Your task to perform on an android device: Go to Android settings Image 0: 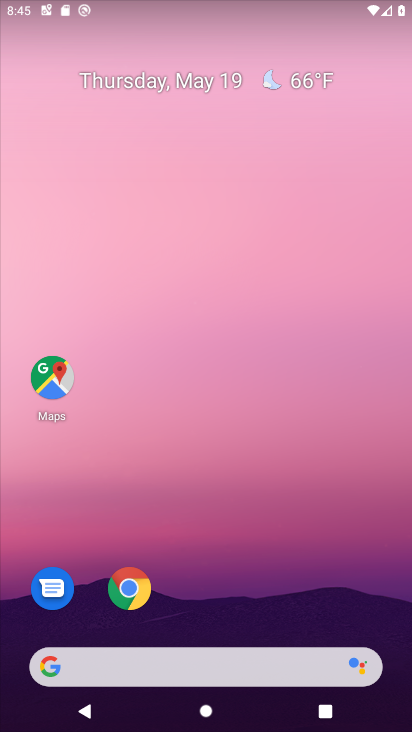
Step 0: drag from (344, 595) to (361, 171)
Your task to perform on an android device: Go to Android settings Image 1: 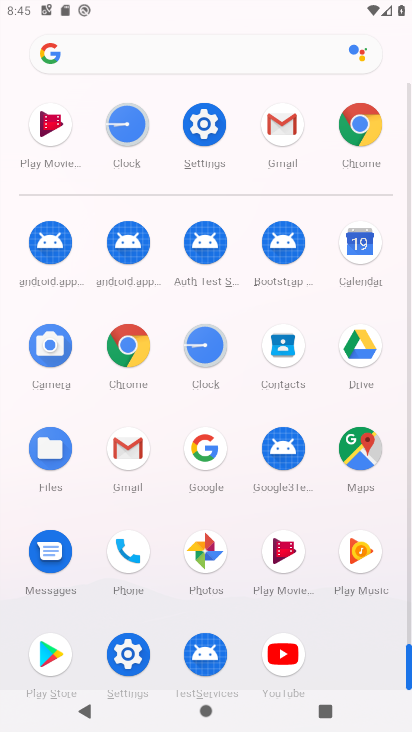
Step 1: drag from (317, 631) to (321, 377)
Your task to perform on an android device: Go to Android settings Image 2: 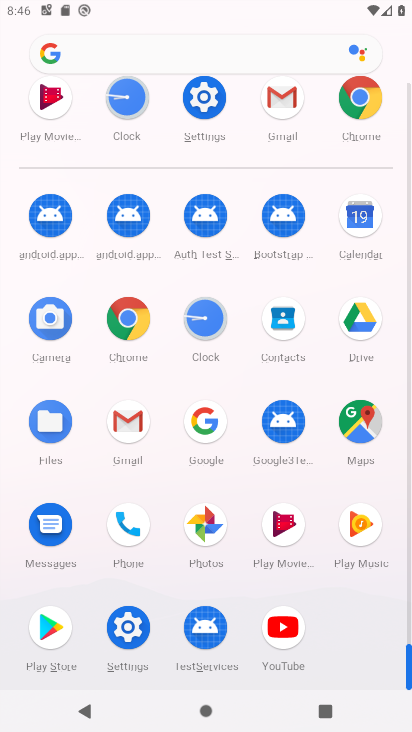
Step 2: click (213, 115)
Your task to perform on an android device: Go to Android settings Image 3: 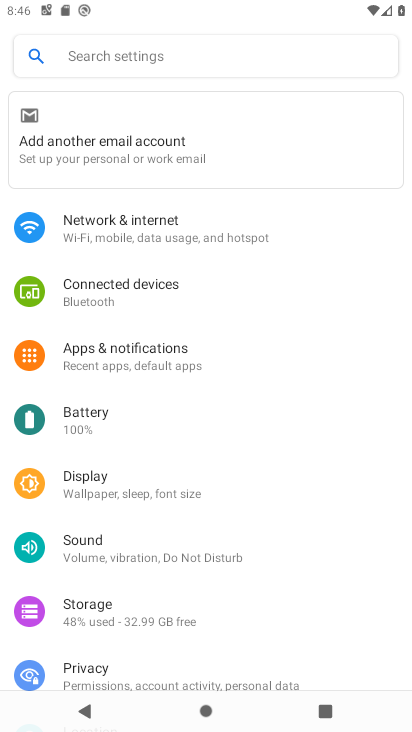
Step 3: drag from (285, 445) to (314, 314)
Your task to perform on an android device: Go to Android settings Image 4: 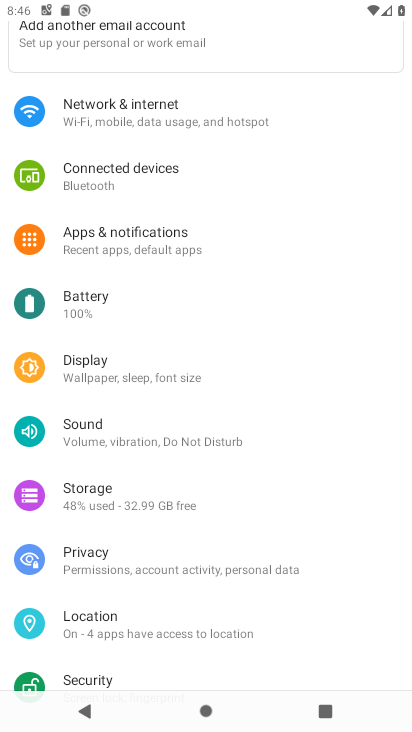
Step 4: drag from (337, 525) to (333, 315)
Your task to perform on an android device: Go to Android settings Image 5: 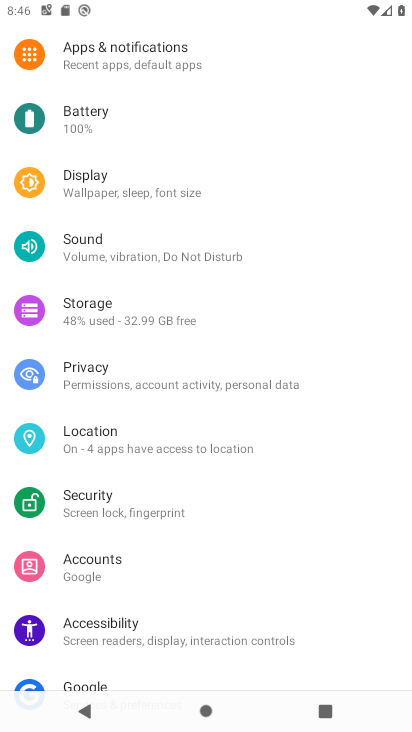
Step 5: drag from (336, 565) to (338, 380)
Your task to perform on an android device: Go to Android settings Image 6: 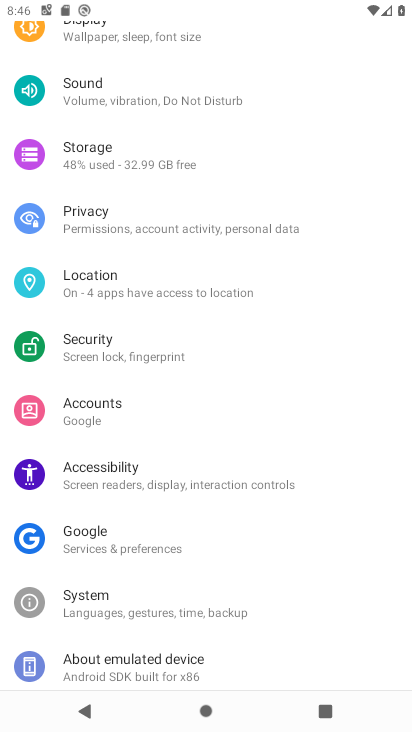
Step 6: drag from (328, 593) to (332, 466)
Your task to perform on an android device: Go to Android settings Image 7: 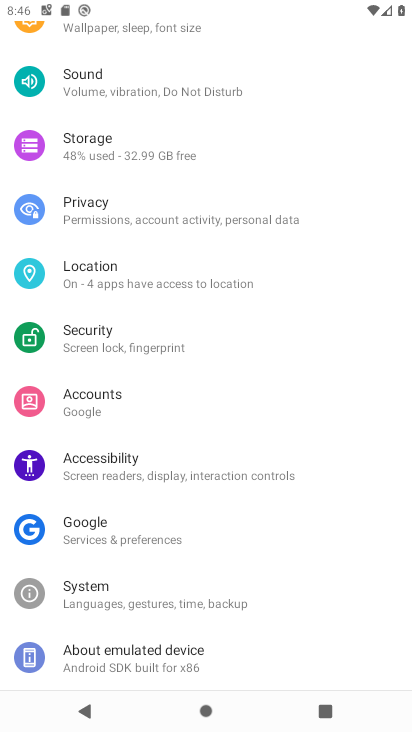
Step 7: drag from (323, 579) to (320, 458)
Your task to perform on an android device: Go to Android settings Image 8: 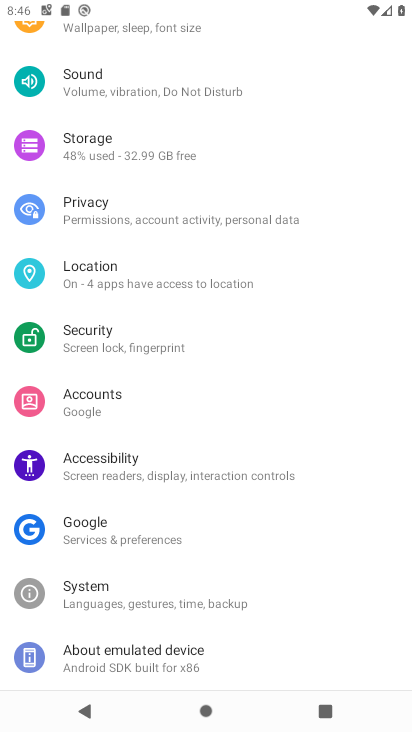
Step 8: drag from (321, 586) to (324, 481)
Your task to perform on an android device: Go to Android settings Image 9: 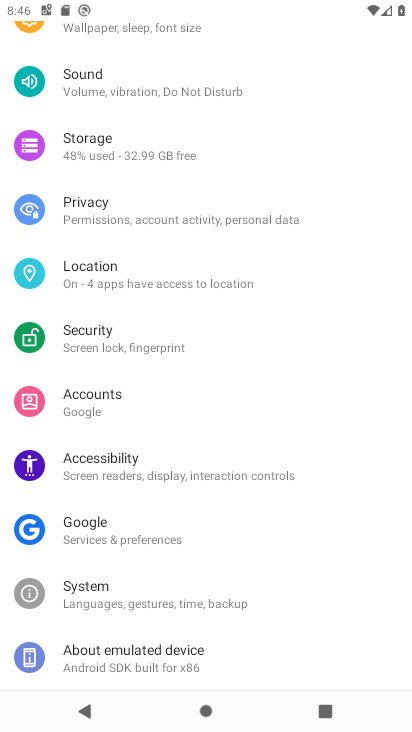
Step 9: drag from (323, 350) to (318, 467)
Your task to perform on an android device: Go to Android settings Image 10: 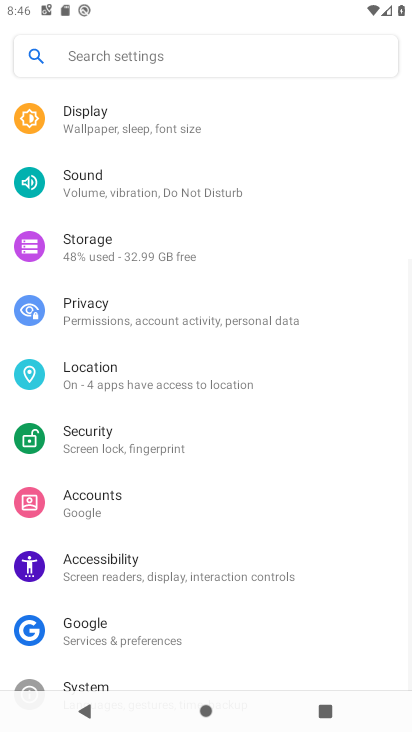
Step 10: drag from (334, 585) to (329, 364)
Your task to perform on an android device: Go to Android settings Image 11: 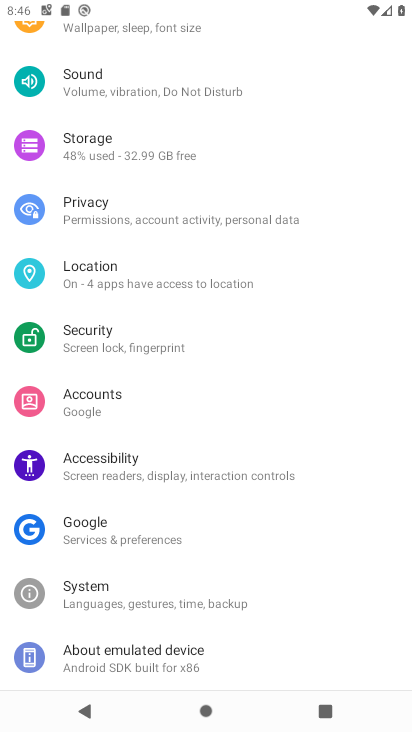
Step 11: click (132, 599)
Your task to perform on an android device: Go to Android settings Image 12: 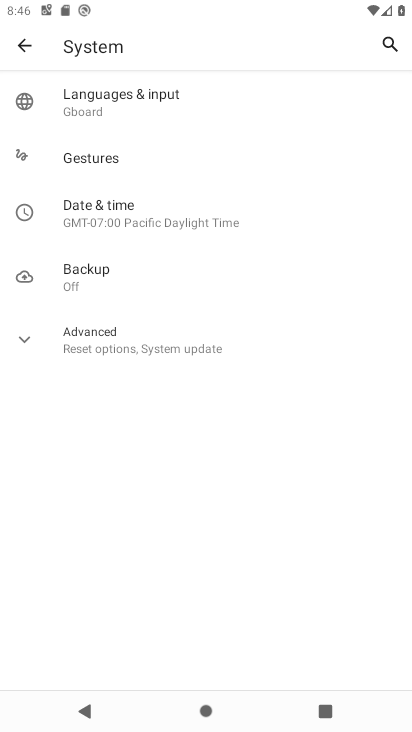
Step 12: click (197, 350)
Your task to perform on an android device: Go to Android settings Image 13: 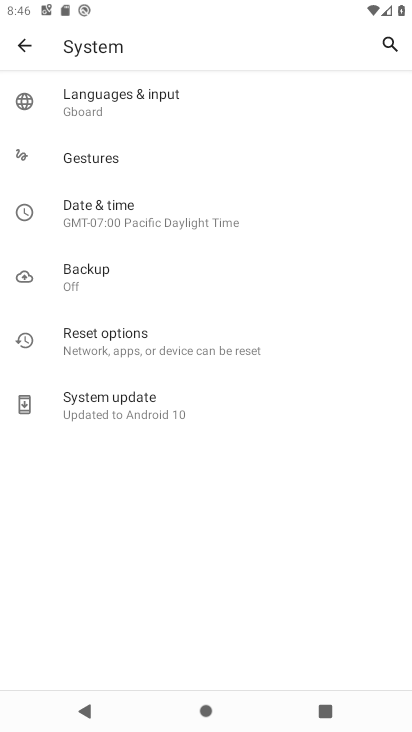
Step 13: task complete